Your task to perform on an android device: toggle data saver in the chrome app Image 0: 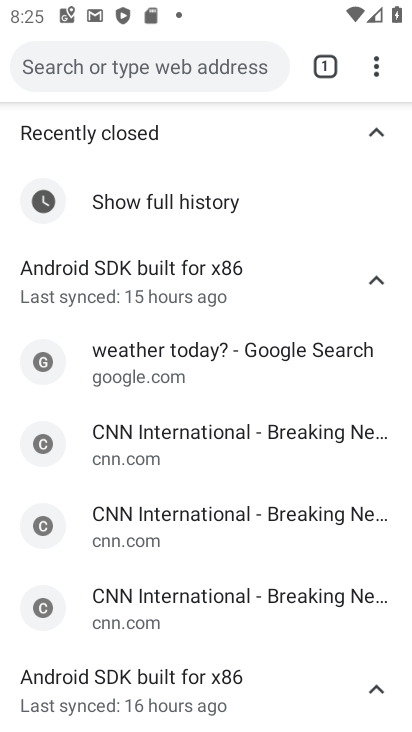
Step 0: press home button
Your task to perform on an android device: toggle data saver in the chrome app Image 1: 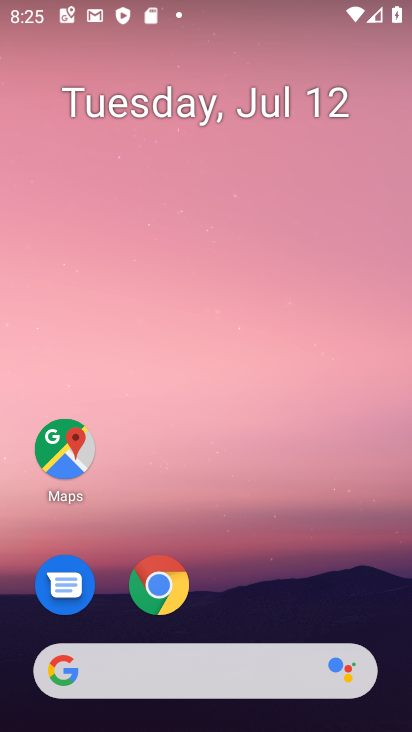
Step 1: click (170, 584)
Your task to perform on an android device: toggle data saver in the chrome app Image 2: 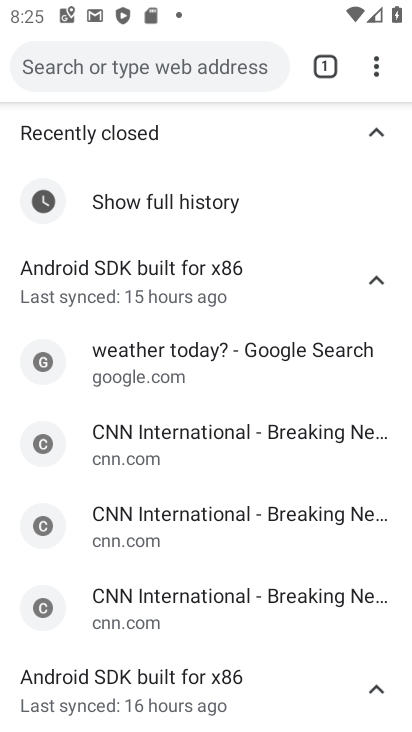
Step 2: click (374, 74)
Your task to perform on an android device: toggle data saver in the chrome app Image 3: 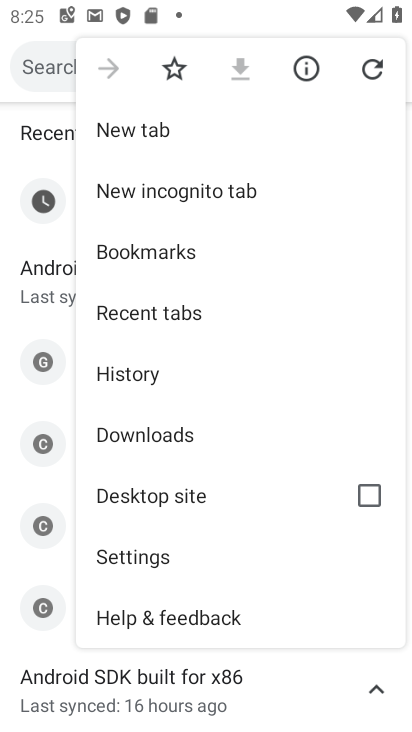
Step 3: click (160, 558)
Your task to perform on an android device: toggle data saver in the chrome app Image 4: 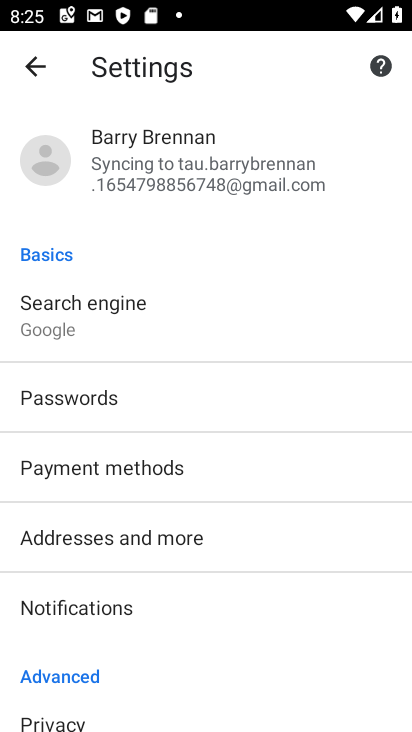
Step 4: drag from (204, 607) to (273, 98)
Your task to perform on an android device: toggle data saver in the chrome app Image 5: 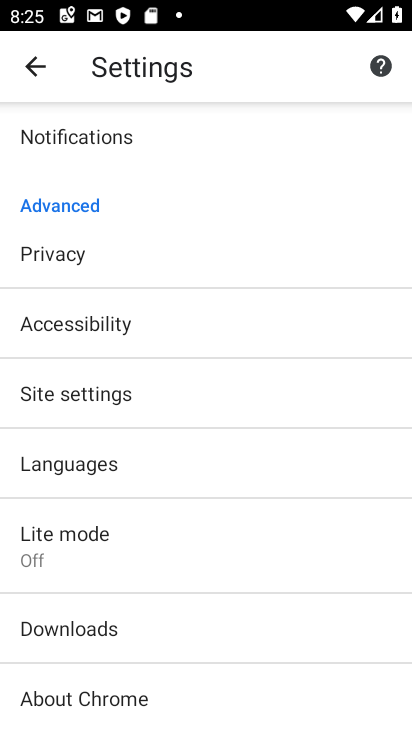
Step 5: click (96, 549)
Your task to perform on an android device: toggle data saver in the chrome app Image 6: 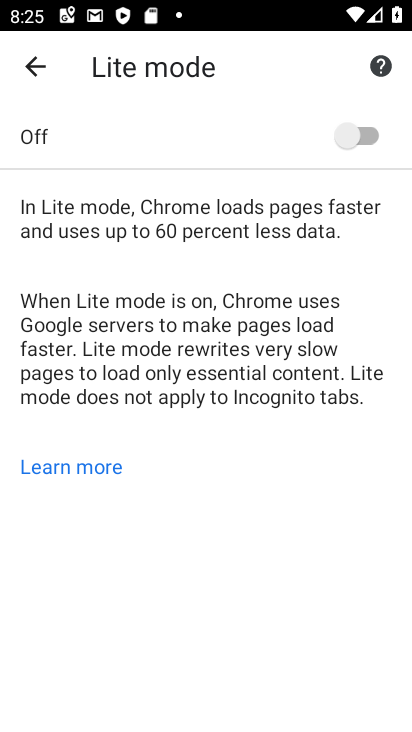
Step 6: click (374, 133)
Your task to perform on an android device: toggle data saver in the chrome app Image 7: 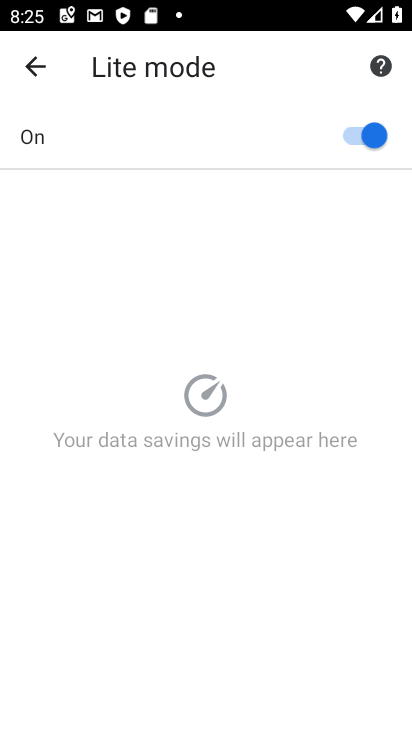
Step 7: task complete